Your task to perform on an android device: turn off notifications settings in the gmail app Image 0: 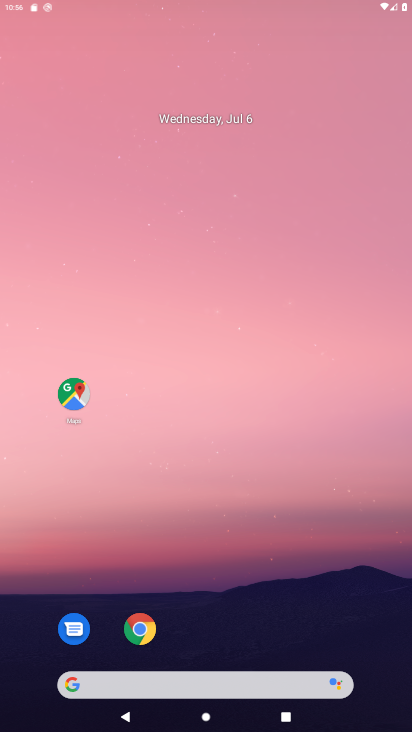
Step 0: press home button
Your task to perform on an android device: turn off notifications settings in the gmail app Image 1: 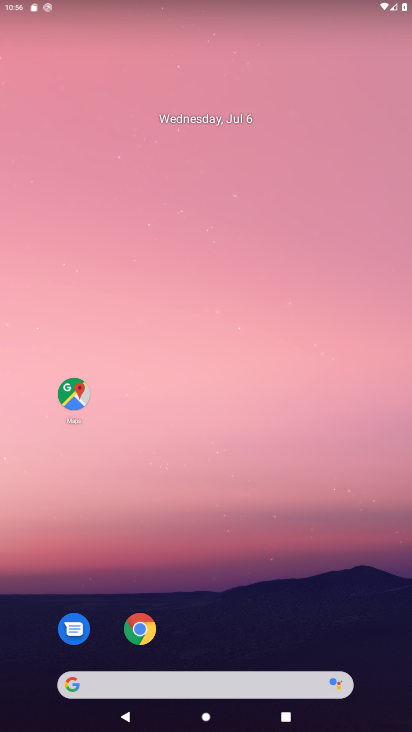
Step 1: drag from (231, 652) to (223, 3)
Your task to perform on an android device: turn off notifications settings in the gmail app Image 2: 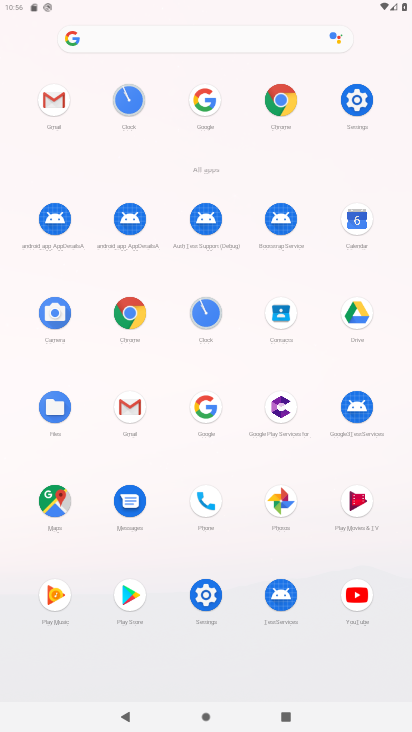
Step 2: click (51, 97)
Your task to perform on an android device: turn off notifications settings in the gmail app Image 3: 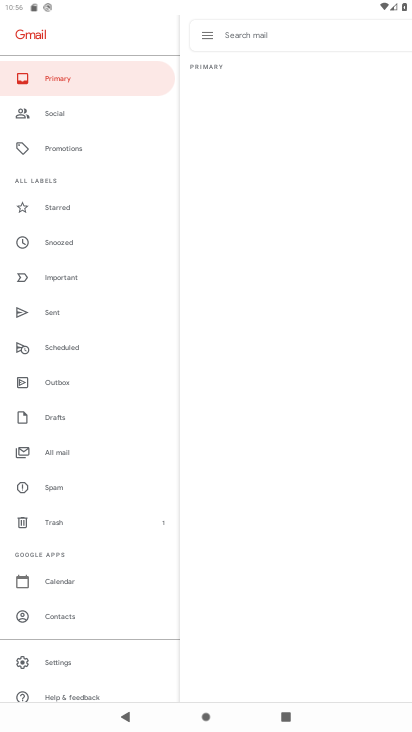
Step 3: click (78, 662)
Your task to perform on an android device: turn off notifications settings in the gmail app Image 4: 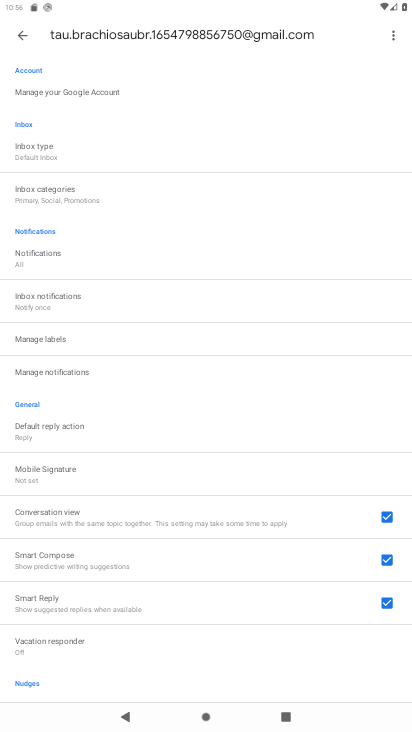
Step 4: click (26, 37)
Your task to perform on an android device: turn off notifications settings in the gmail app Image 5: 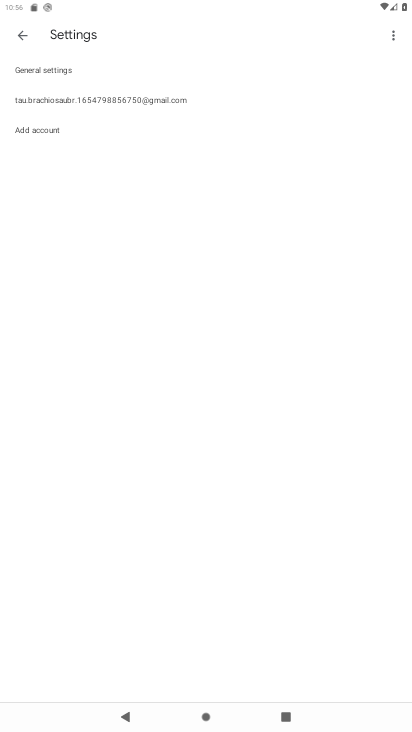
Step 5: click (72, 66)
Your task to perform on an android device: turn off notifications settings in the gmail app Image 6: 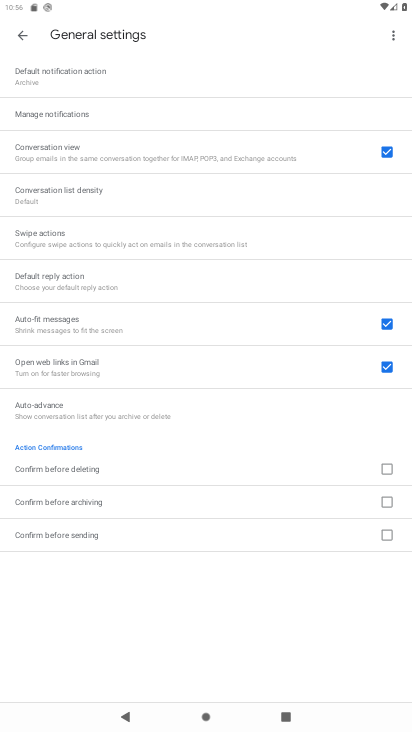
Step 6: click (96, 113)
Your task to perform on an android device: turn off notifications settings in the gmail app Image 7: 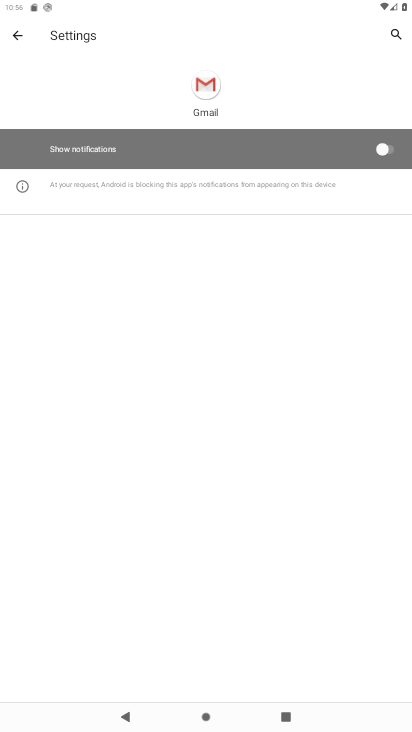
Step 7: task complete